Your task to perform on an android device: Go to Wikipedia Image 0: 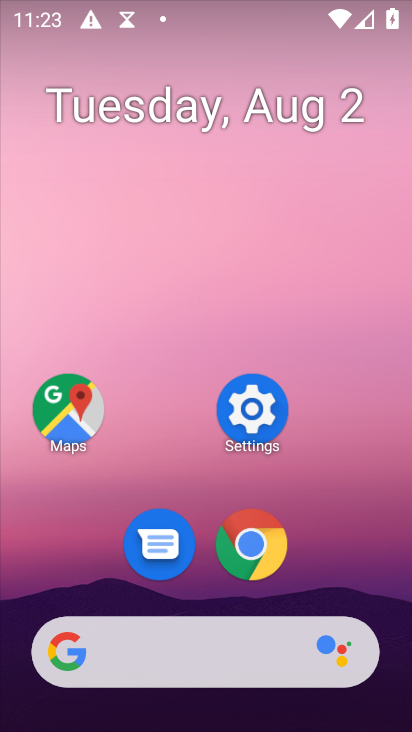
Step 0: click (250, 555)
Your task to perform on an android device: Go to Wikipedia Image 1: 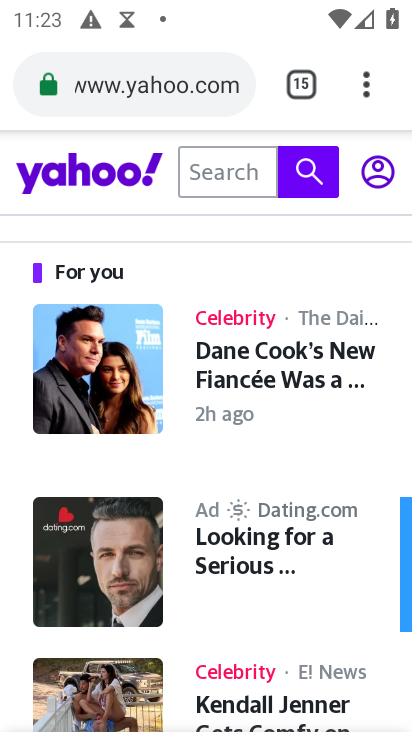
Step 1: drag from (364, 80) to (105, 166)
Your task to perform on an android device: Go to Wikipedia Image 2: 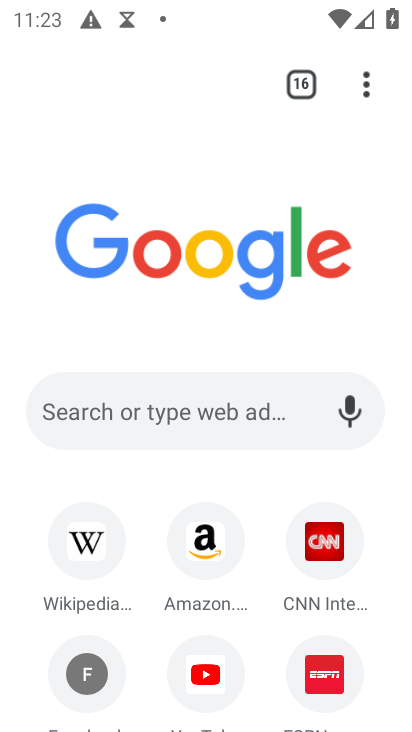
Step 2: click (86, 548)
Your task to perform on an android device: Go to Wikipedia Image 3: 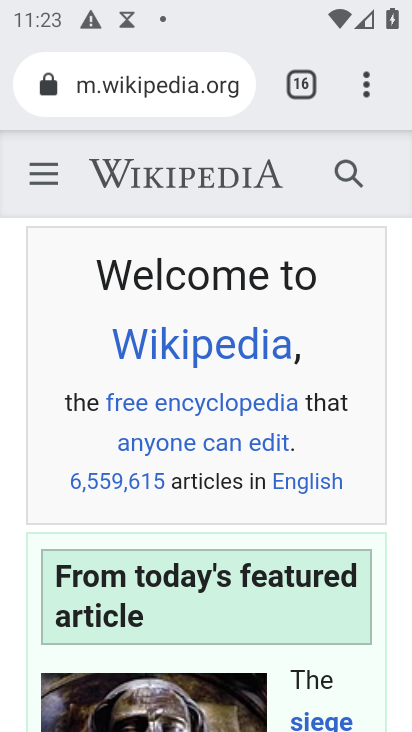
Step 3: task complete